Your task to perform on an android device: check storage Image 0: 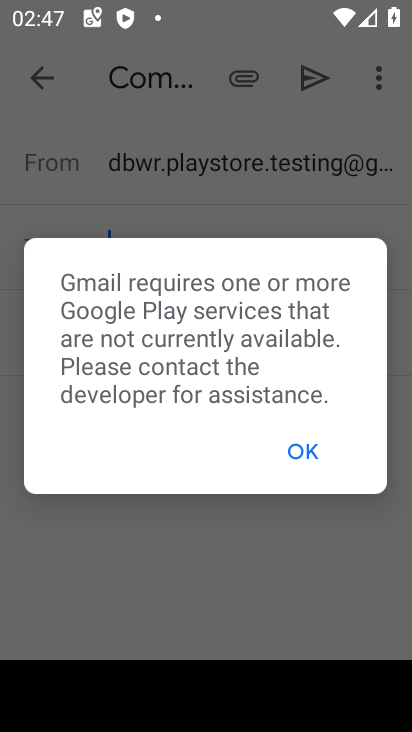
Step 0: press home button
Your task to perform on an android device: check storage Image 1: 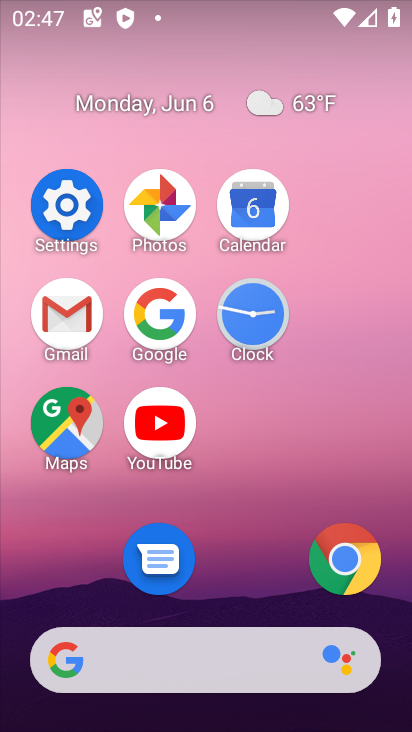
Step 1: click (52, 213)
Your task to perform on an android device: check storage Image 2: 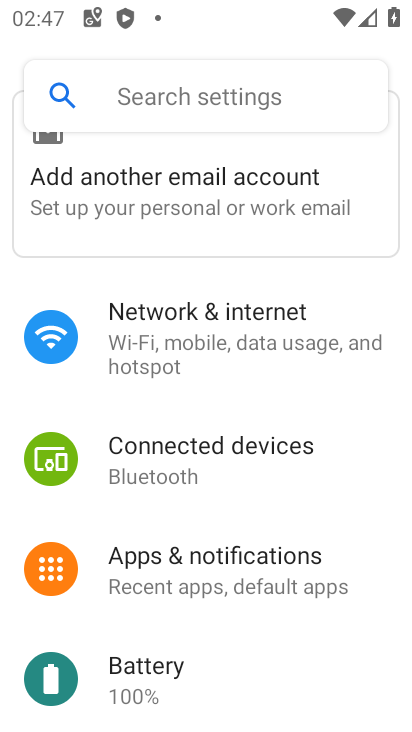
Step 2: drag from (232, 603) to (204, 134)
Your task to perform on an android device: check storage Image 3: 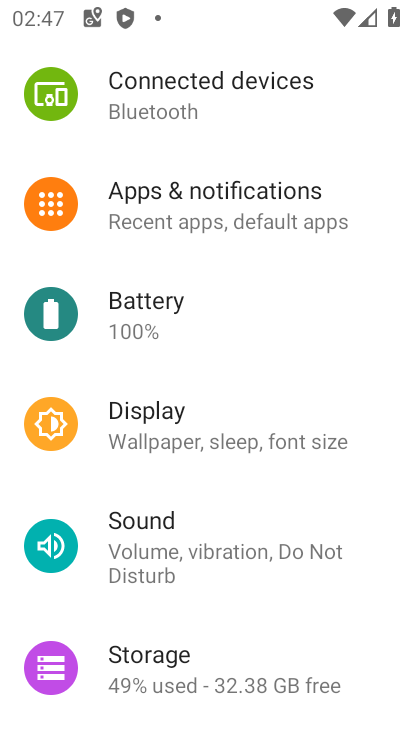
Step 3: click (215, 679)
Your task to perform on an android device: check storage Image 4: 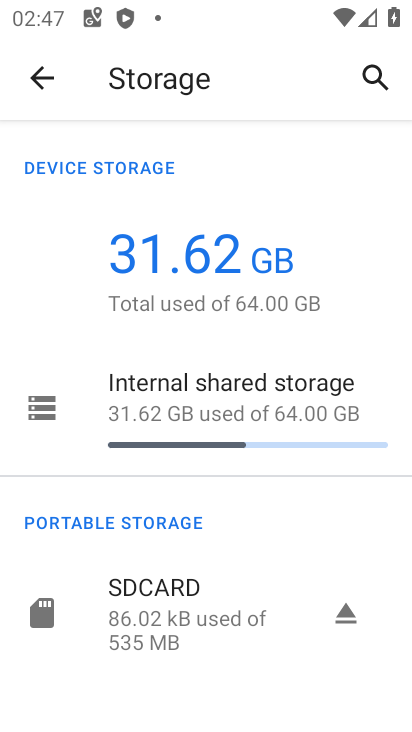
Step 4: task complete